Your task to perform on an android device: What's the weather today? Image 0: 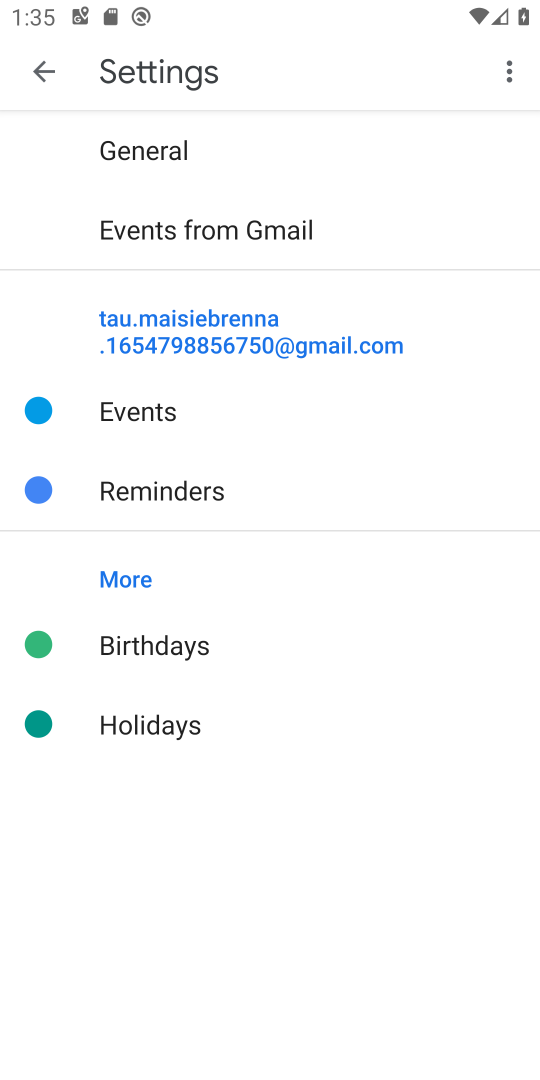
Step 0: press home button
Your task to perform on an android device: What's the weather today? Image 1: 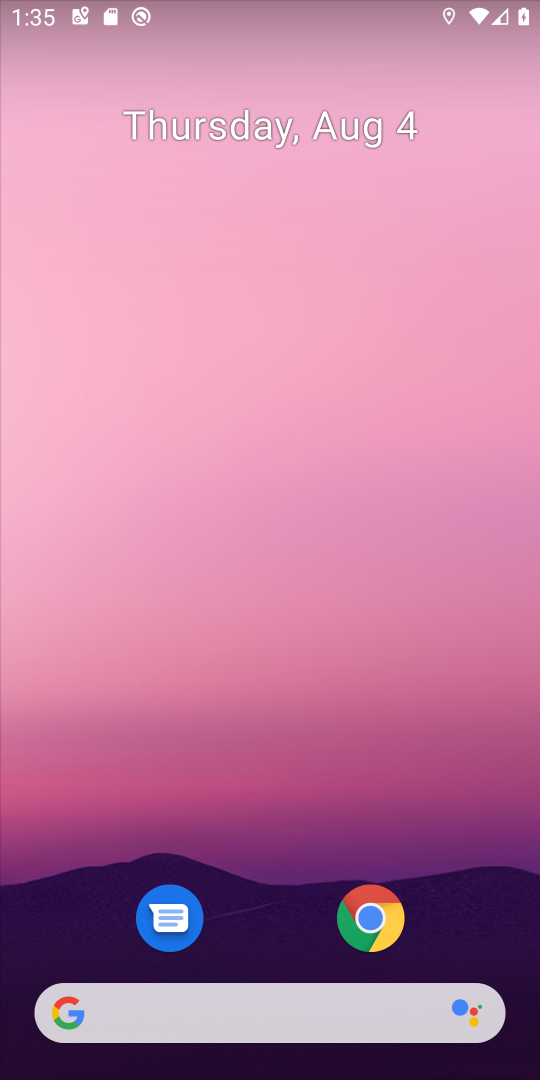
Step 1: drag from (271, 919) to (334, 156)
Your task to perform on an android device: What's the weather today? Image 2: 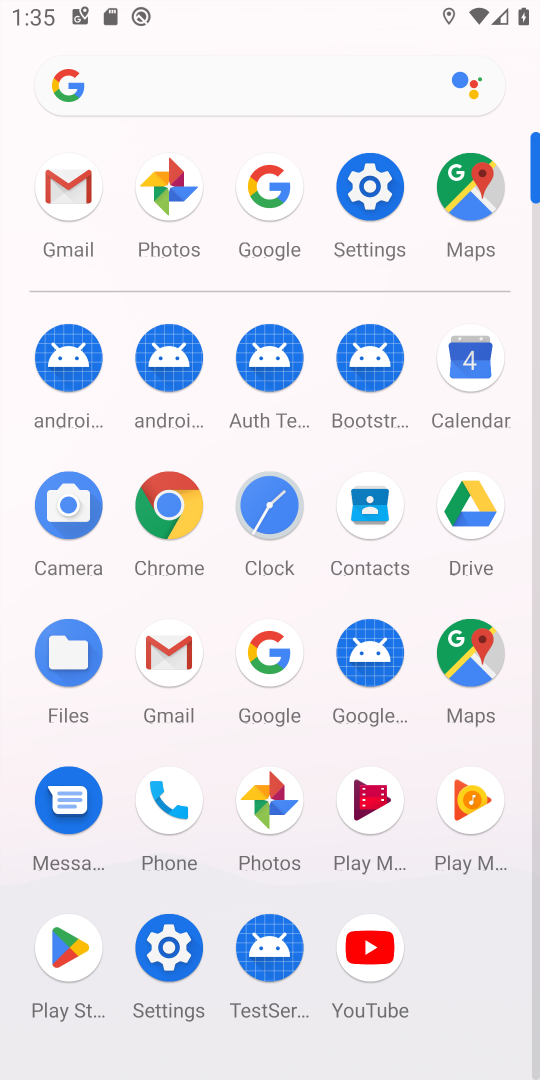
Step 2: click (250, 648)
Your task to perform on an android device: What's the weather today? Image 3: 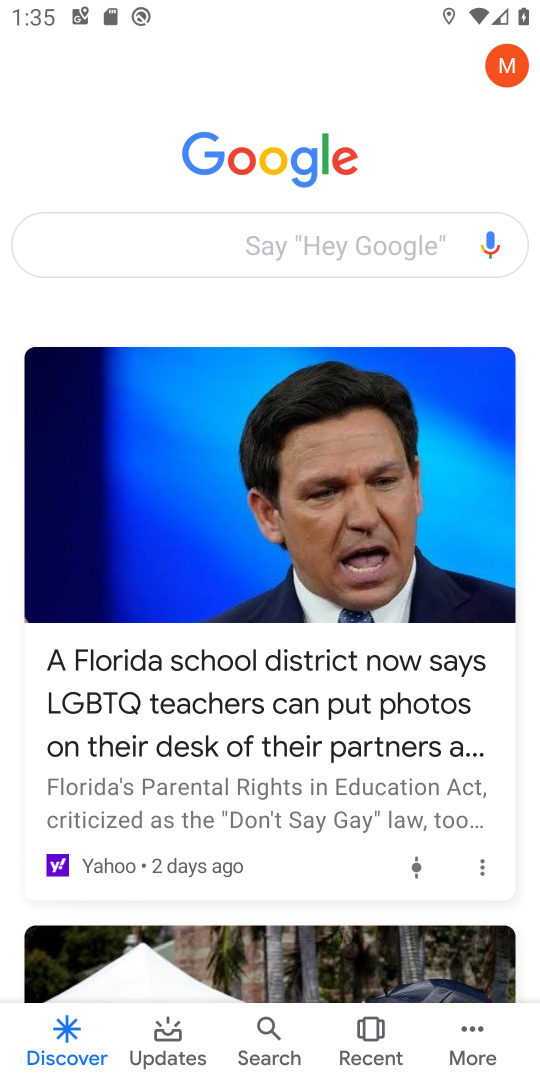
Step 3: click (220, 251)
Your task to perform on an android device: What's the weather today? Image 4: 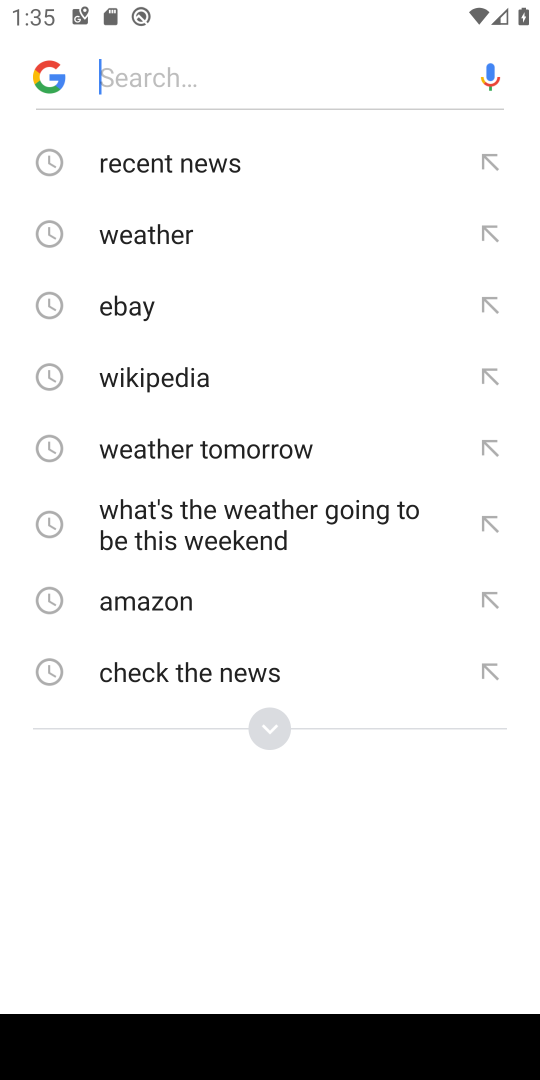
Step 4: click (160, 238)
Your task to perform on an android device: What's the weather today? Image 5: 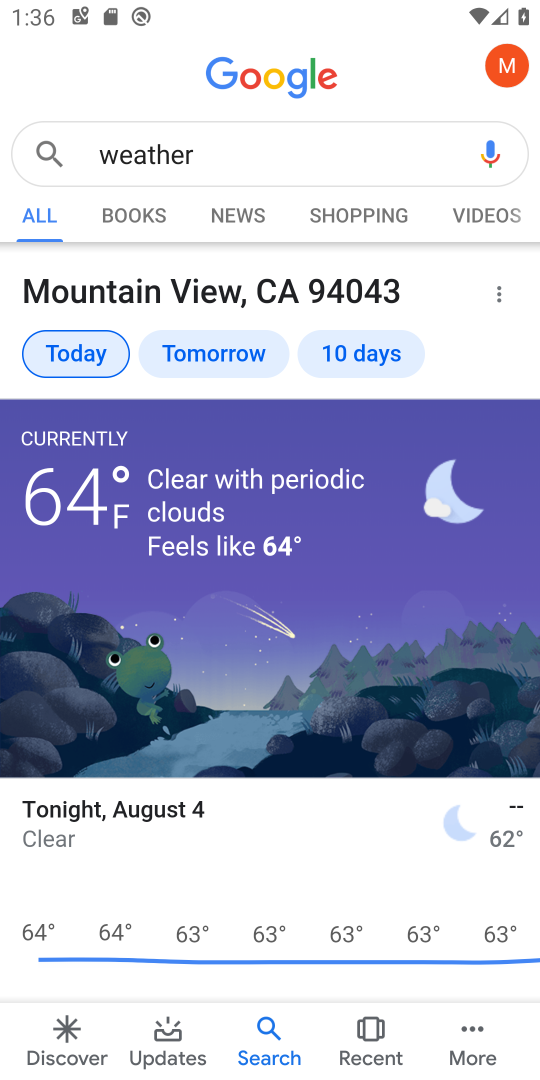
Step 5: task complete